Your task to perform on an android device: change text size in settings app Image 0: 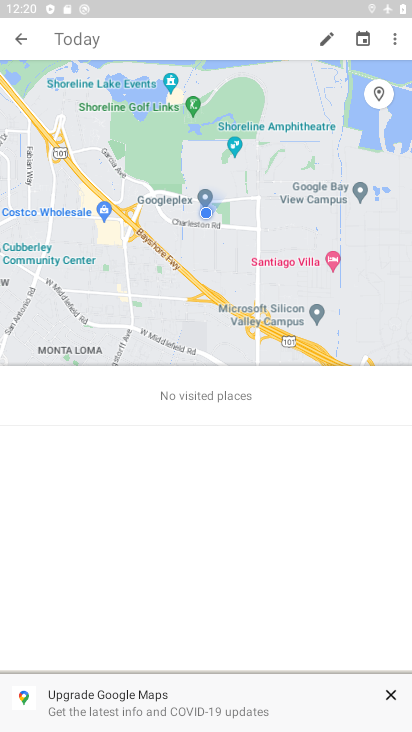
Step 0: press home button
Your task to perform on an android device: change text size in settings app Image 1: 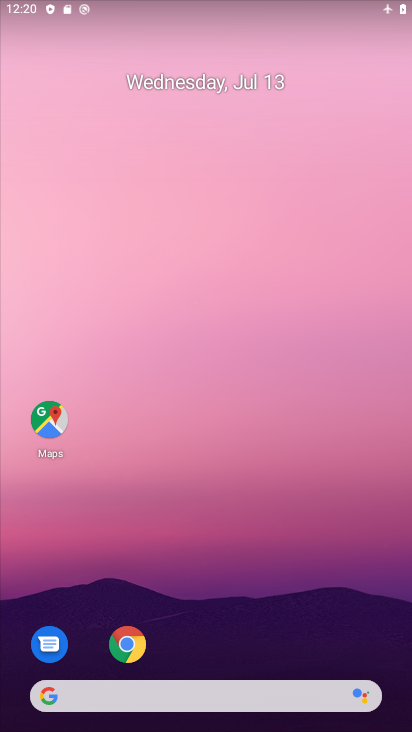
Step 1: drag from (292, 520) to (259, 128)
Your task to perform on an android device: change text size in settings app Image 2: 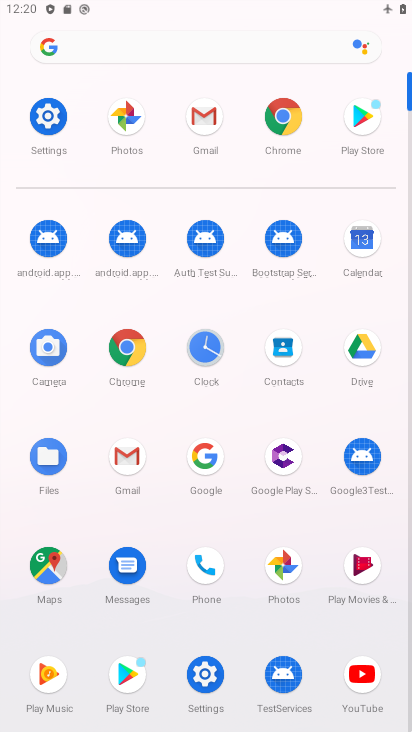
Step 2: click (45, 117)
Your task to perform on an android device: change text size in settings app Image 3: 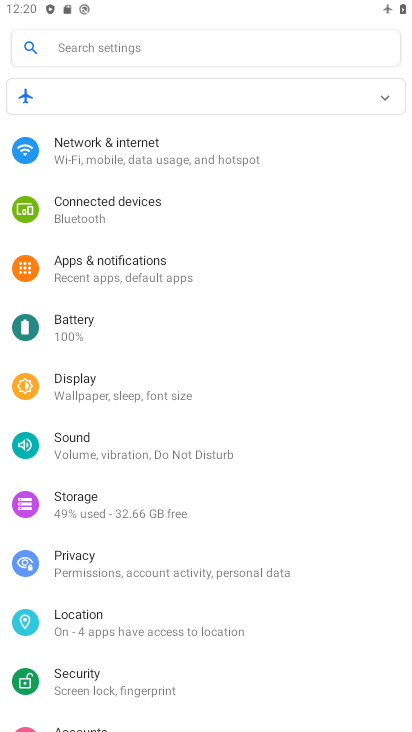
Step 3: click (105, 392)
Your task to perform on an android device: change text size in settings app Image 4: 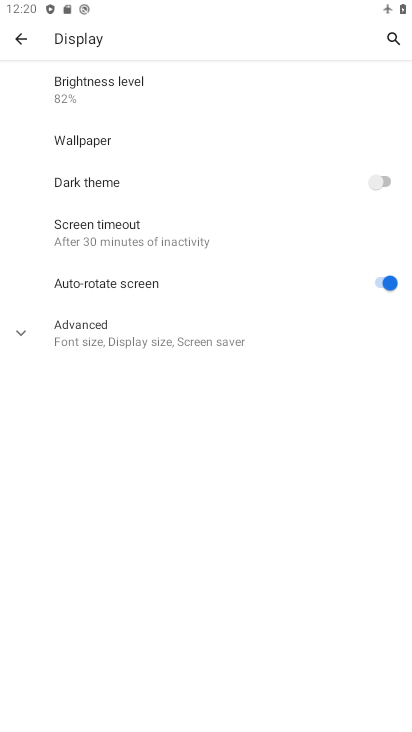
Step 4: click (103, 338)
Your task to perform on an android device: change text size in settings app Image 5: 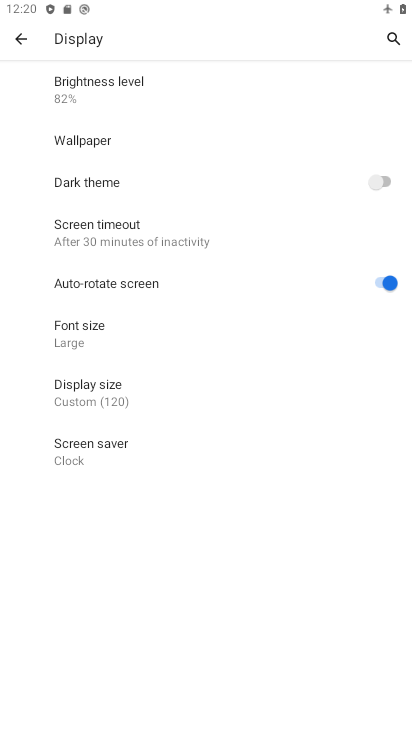
Step 5: click (89, 335)
Your task to perform on an android device: change text size in settings app Image 6: 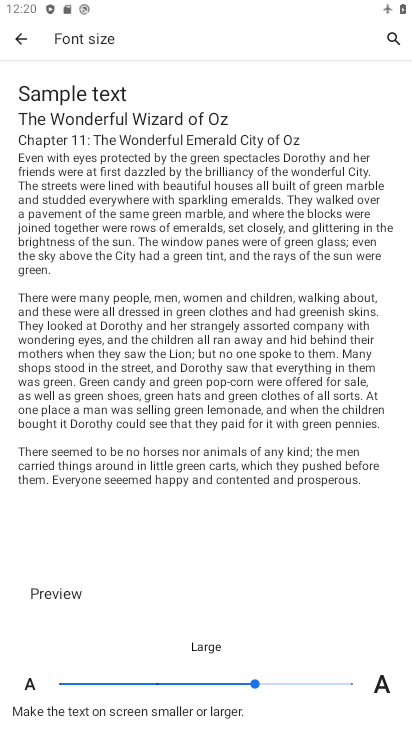
Step 6: click (151, 683)
Your task to perform on an android device: change text size in settings app Image 7: 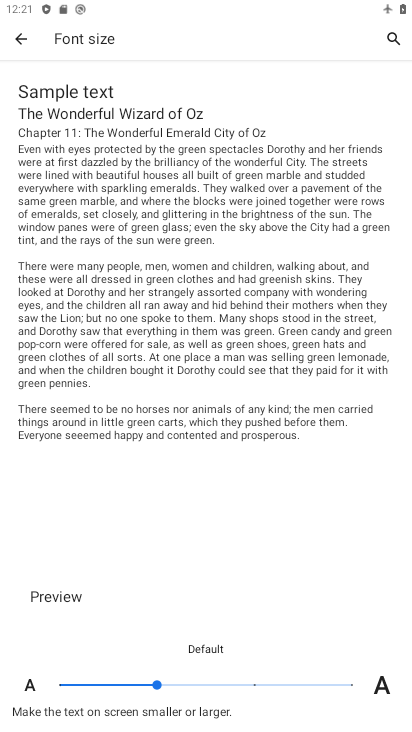
Step 7: task complete